Your task to perform on an android device: open a new tab in the chrome app Image 0: 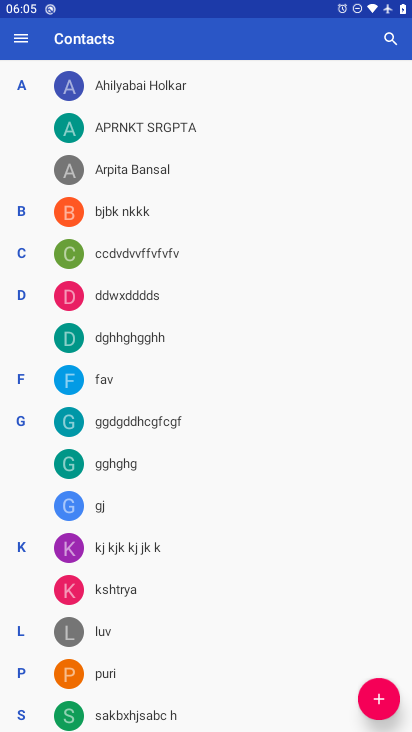
Step 0: press home button
Your task to perform on an android device: open a new tab in the chrome app Image 1: 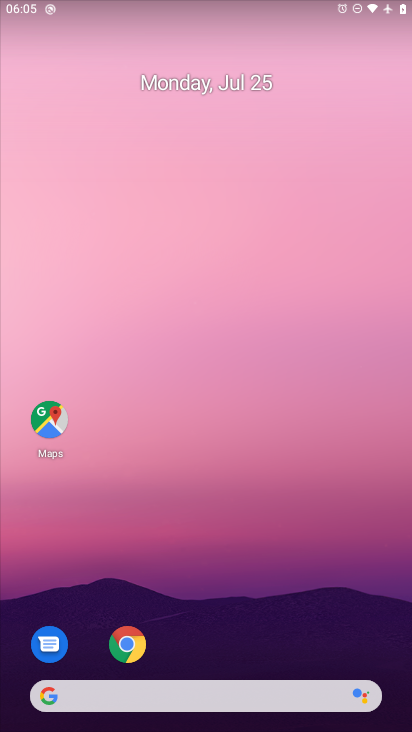
Step 1: drag from (244, 639) to (232, 126)
Your task to perform on an android device: open a new tab in the chrome app Image 2: 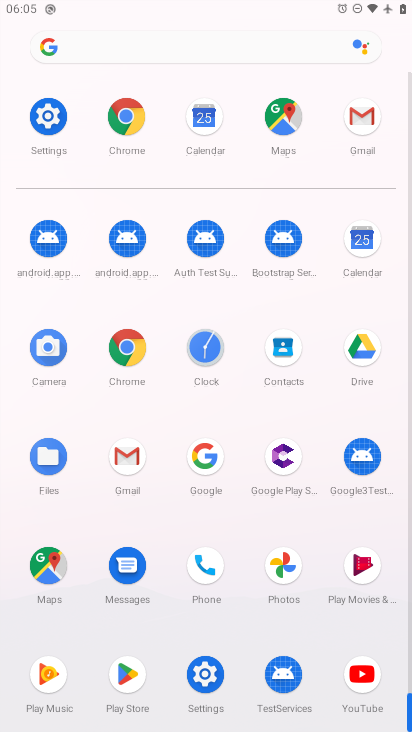
Step 2: click (127, 125)
Your task to perform on an android device: open a new tab in the chrome app Image 3: 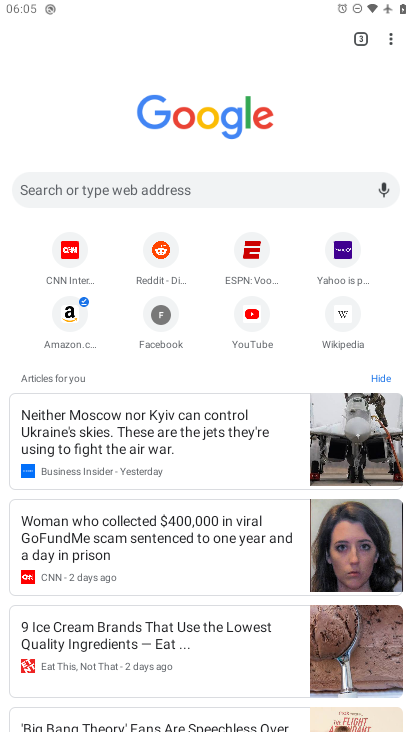
Step 3: click (367, 42)
Your task to perform on an android device: open a new tab in the chrome app Image 4: 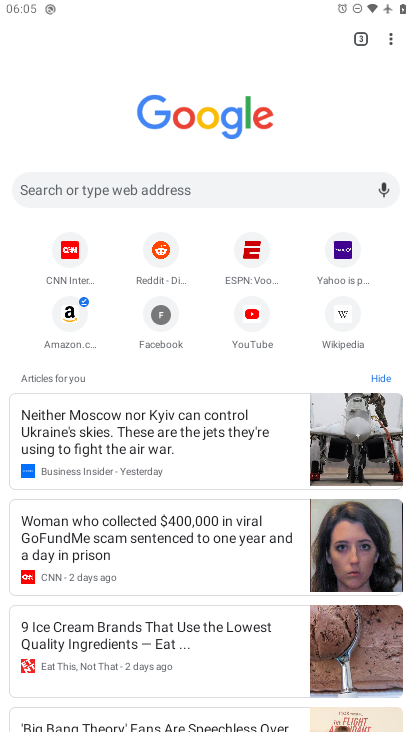
Step 4: click (313, 58)
Your task to perform on an android device: open a new tab in the chrome app Image 5: 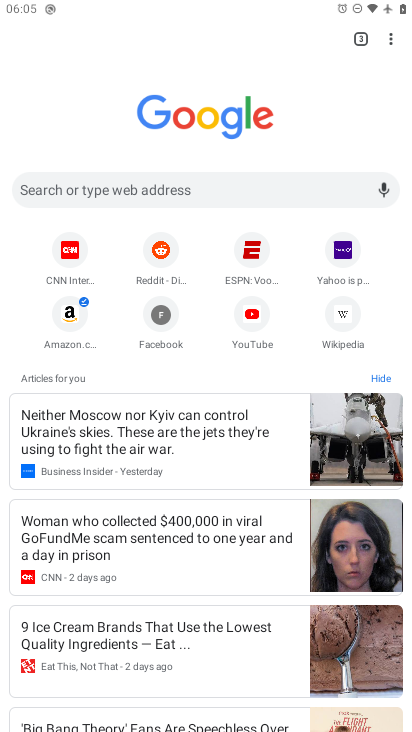
Step 5: click (370, 40)
Your task to perform on an android device: open a new tab in the chrome app Image 6: 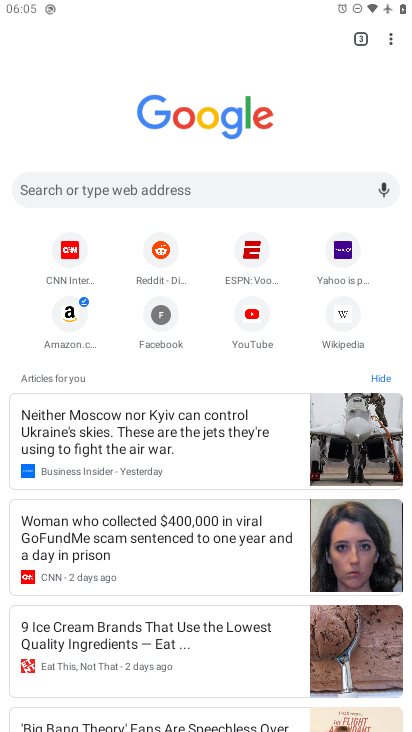
Step 6: click (361, 44)
Your task to perform on an android device: open a new tab in the chrome app Image 7: 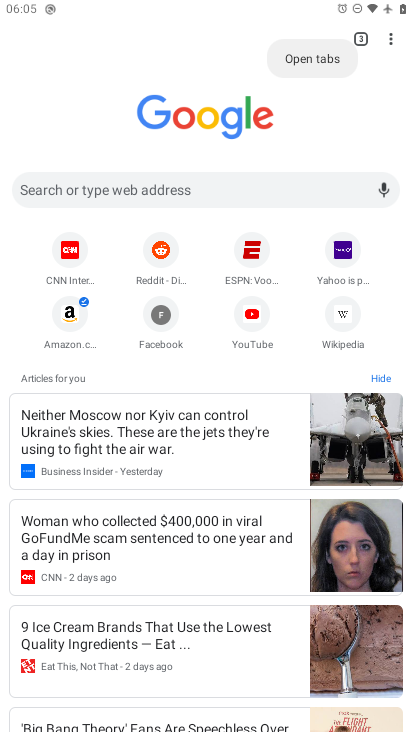
Step 7: click (322, 62)
Your task to perform on an android device: open a new tab in the chrome app Image 8: 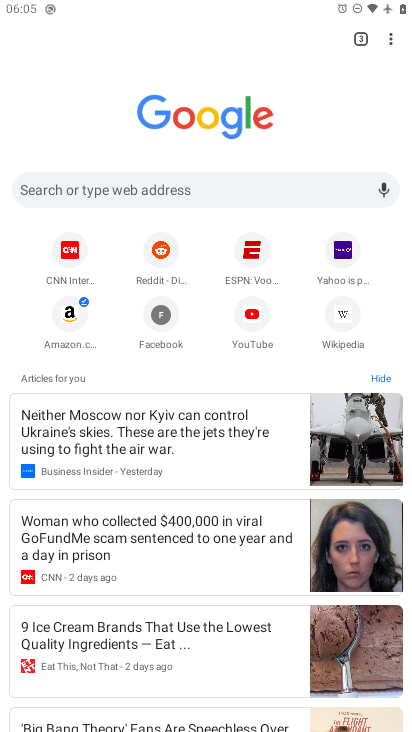
Step 8: click (358, 36)
Your task to perform on an android device: open a new tab in the chrome app Image 9: 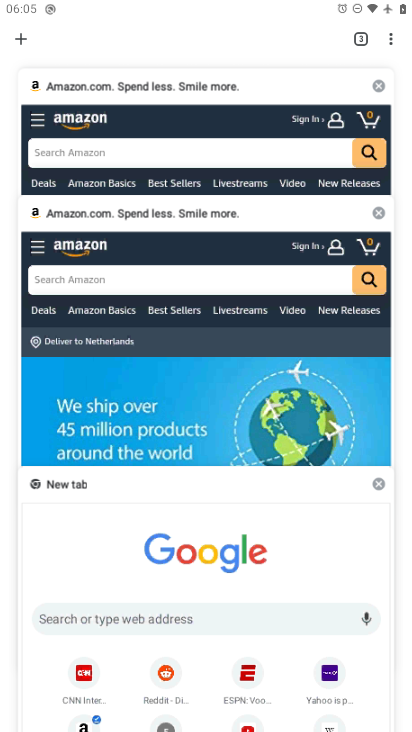
Step 9: click (23, 39)
Your task to perform on an android device: open a new tab in the chrome app Image 10: 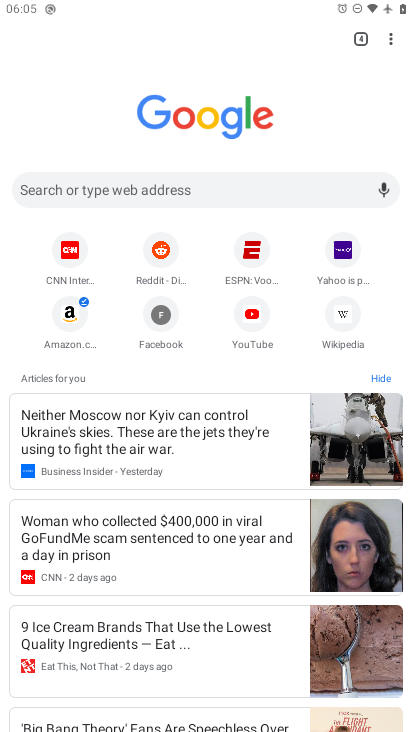
Step 10: task complete